Your task to perform on an android device: When is my next meeting? Image 0: 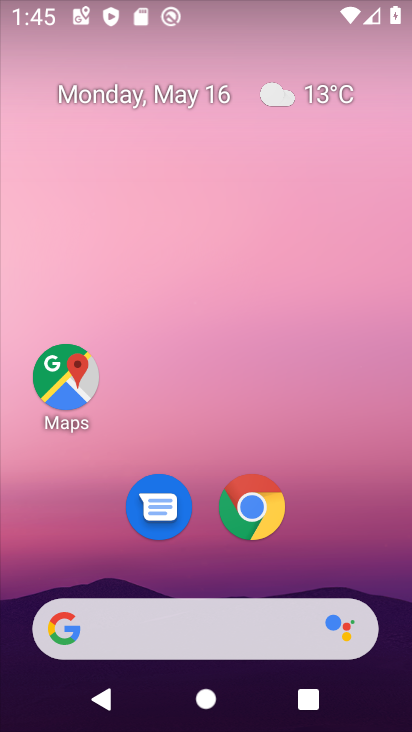
Step 0: drag from (361, 554) to (356, 86)
Your task to perform on an android device: When is my next meeting? Image 1: 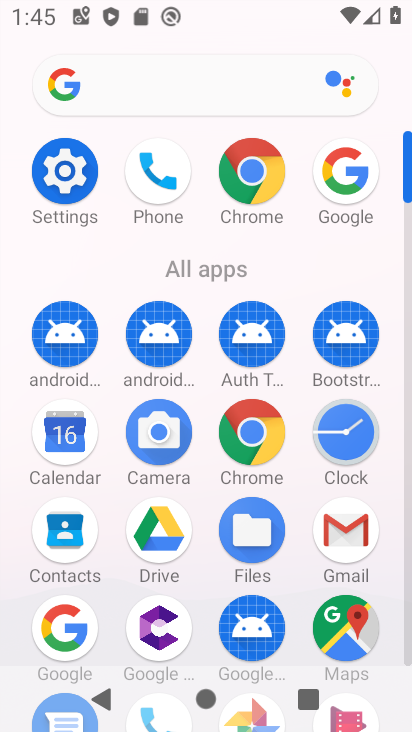
Step 1: click (62, 452)
Your task to perform on an android device: When is my next meeting? Image 2: 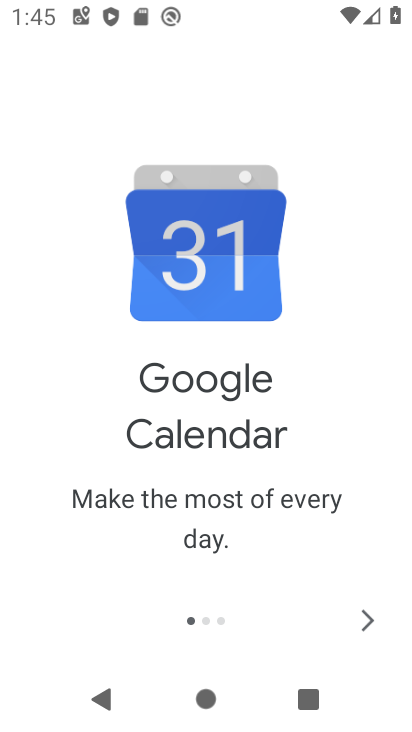
Step 2: click (376, 629)
Your task to perform on an android device: When is my next meeting? Image 3: 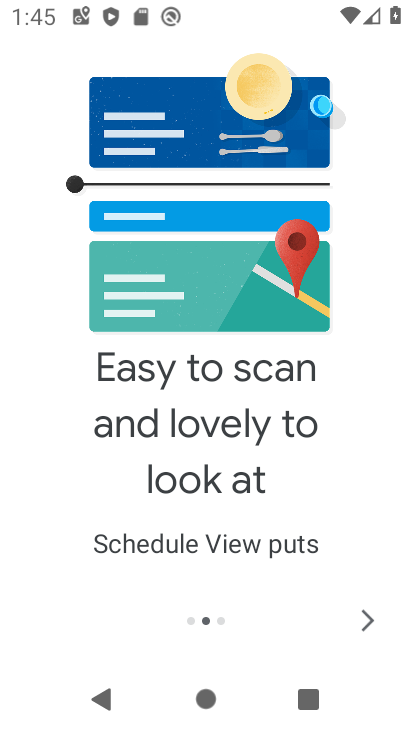
Step 3: click (369, 624)
Your task to perform on an android device: When is my next meeting? Image 4: 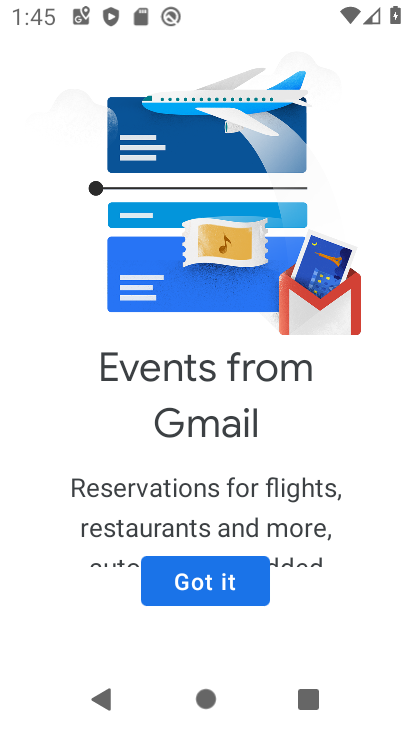
Step 4: click (232, 595)
Your task to perform on an android device: When is my next meeting? Image 5: 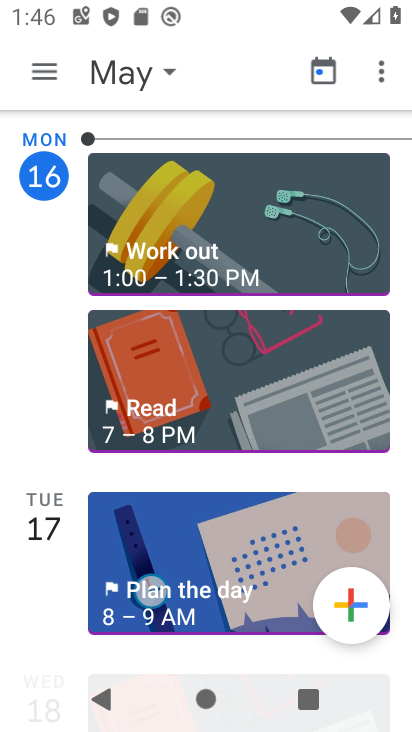
Step 5: click (229, 412)
Your task to perform on an android device: When is my next meeting? Image 6: 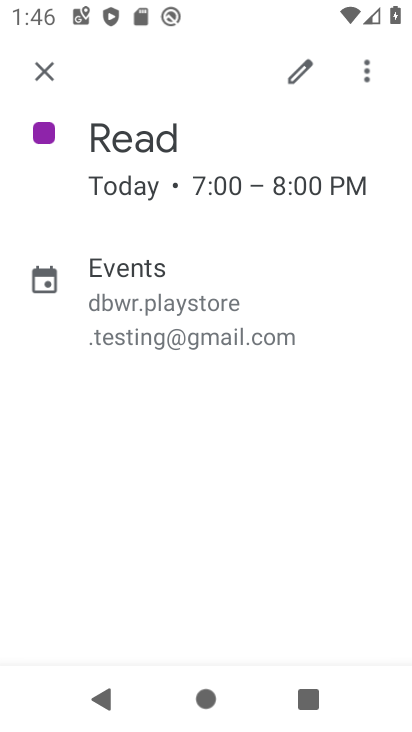
Step 6: task complete